Your task to perform on an android device: Open Google Chrome Image 0: 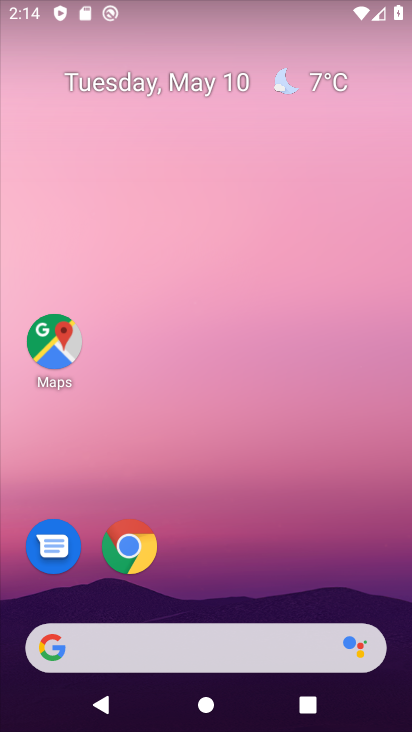
Step 0: click (133, 568)
Your task to perform on an android device: Open Google Chrome Image 1: 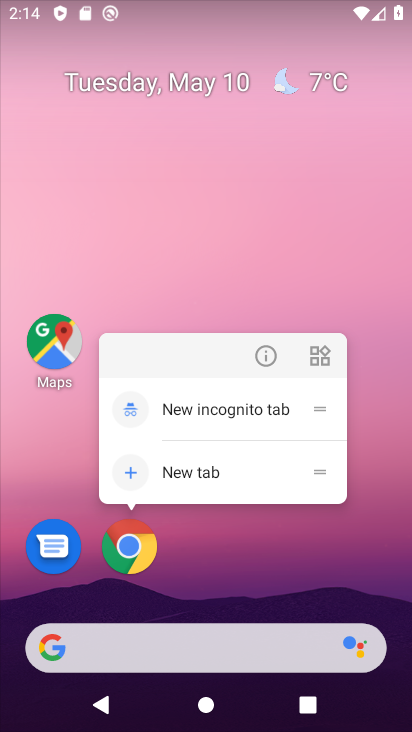
Step 1: click (133, 566)
Your task to perform on an android device: Open Google Chrome Image 2: 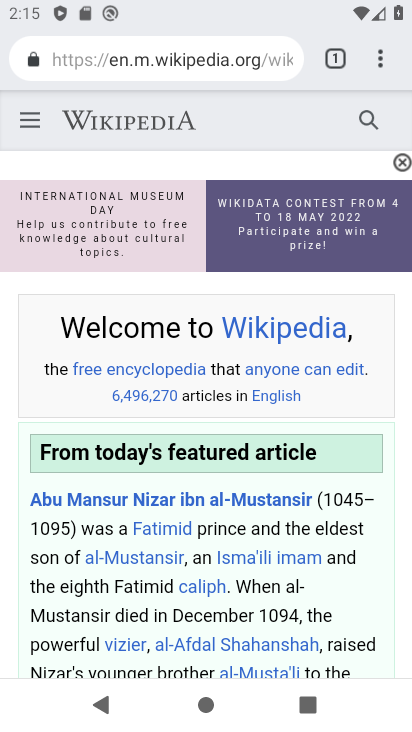
Step 2: task complete